Your task to perform on an android device: View the shopping cart on costco. Add logitech g pro to the cart on costco Image 0: 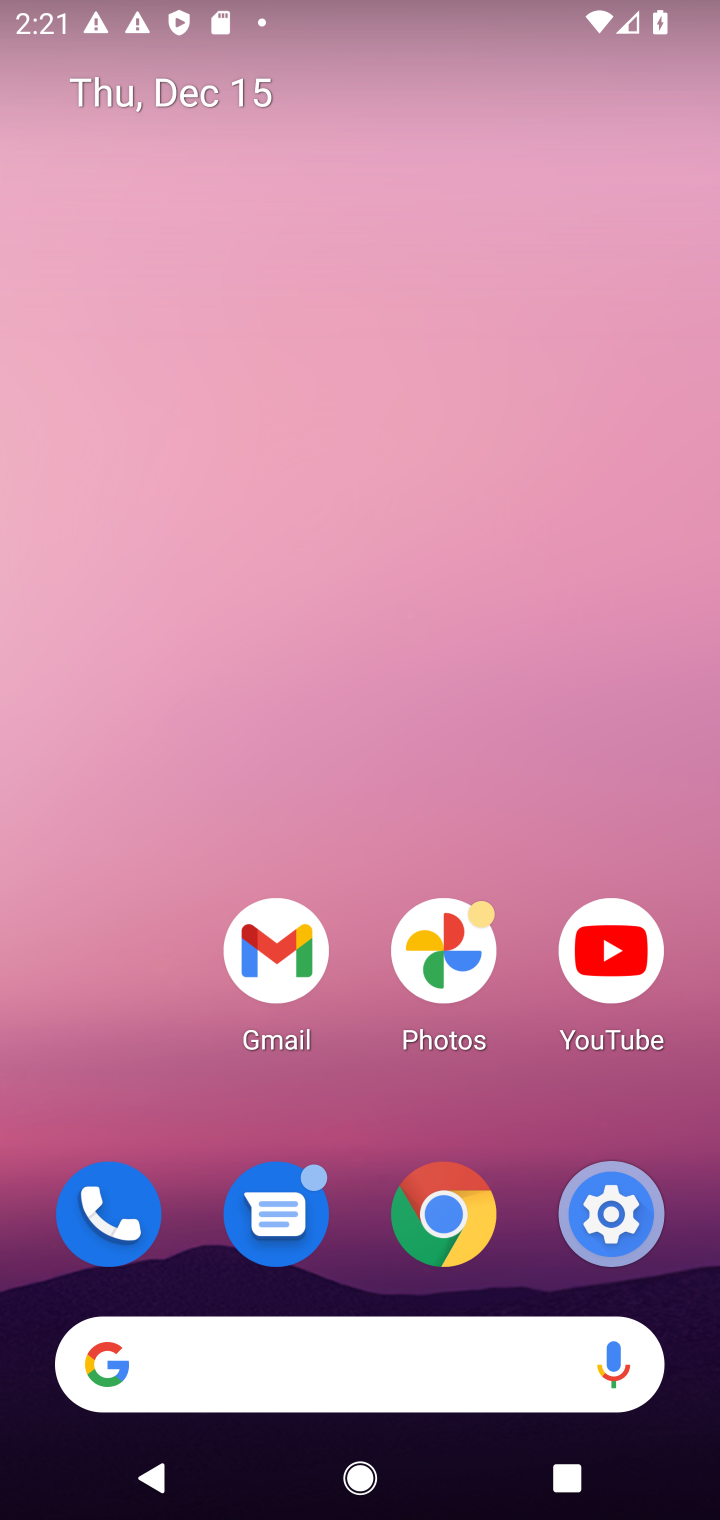
Step 0: click (427, 1226)
Your task to perform on an android device: View the shopping cart on costco. Add logitech g pro to the cart on costco Image 1: 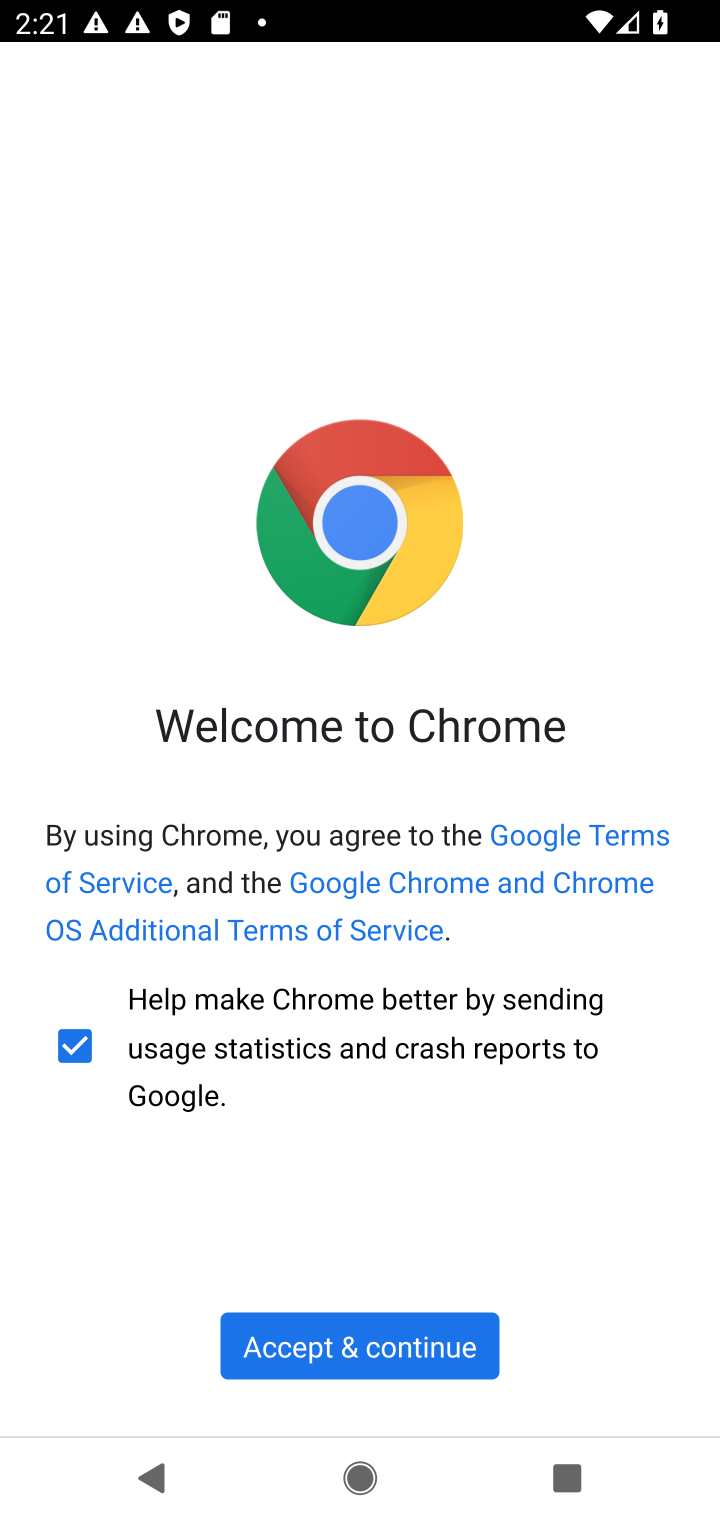
Step 1: click (326, 1330)
Your task to perform on an android device: View the shopping cart on costco. Add logitech g pro to the cart on costco Image 2: 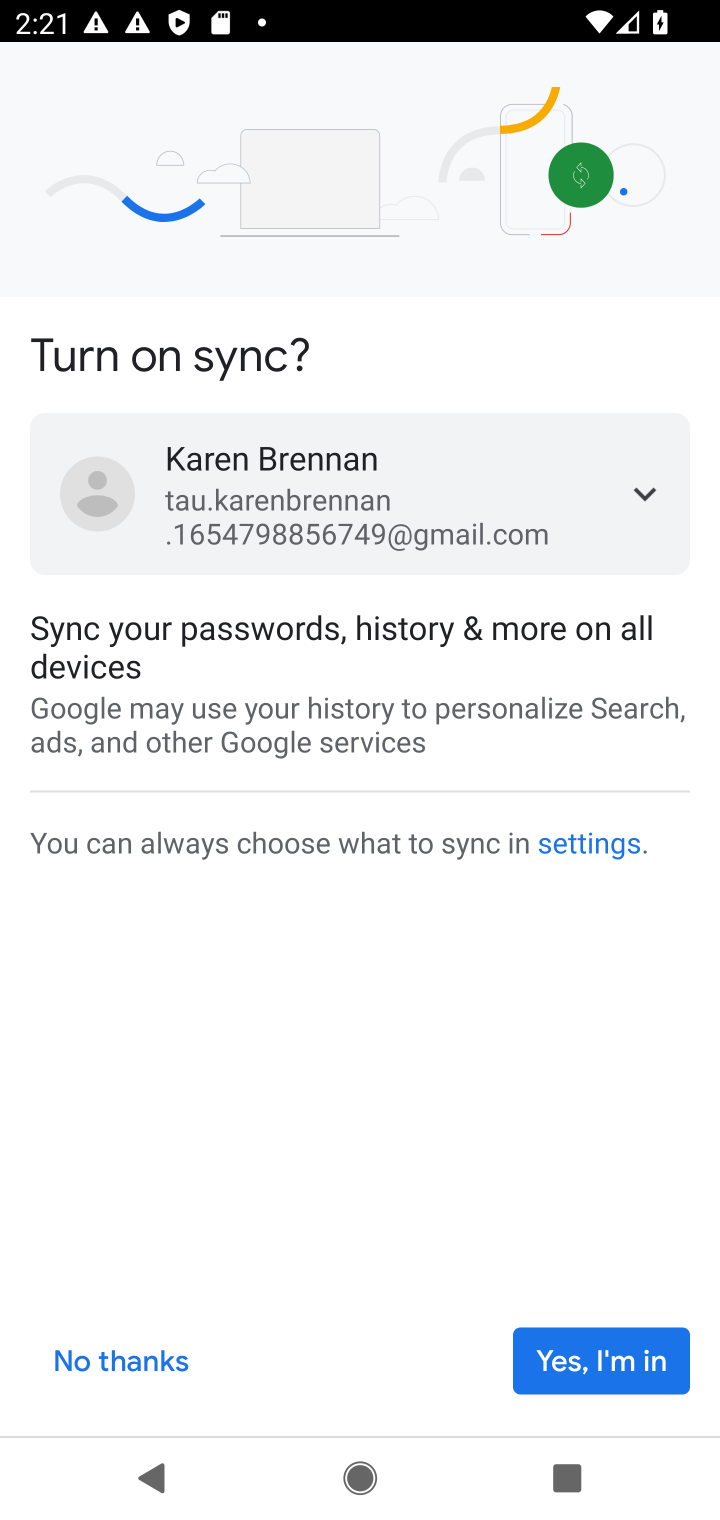
Step 2: click (161, 1368)
Your task to perform on an android device: View the shopping cart on costco. Add logitech g pro to the cart on costco Image 3: 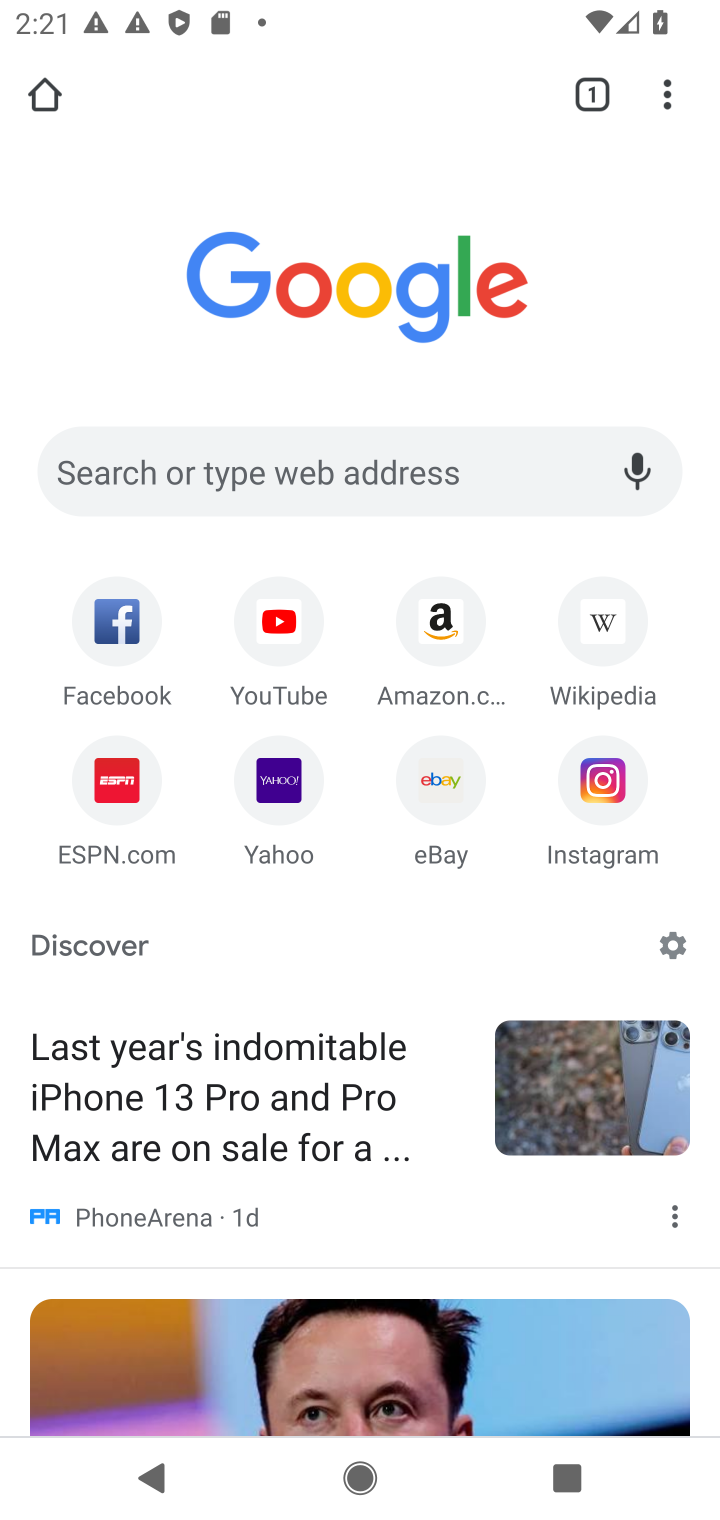
Step 3: click (236, 463)
Your task to perform on an android device: View the shopping cart on costco. Add logitech g pro to the cart on costco Image 4: 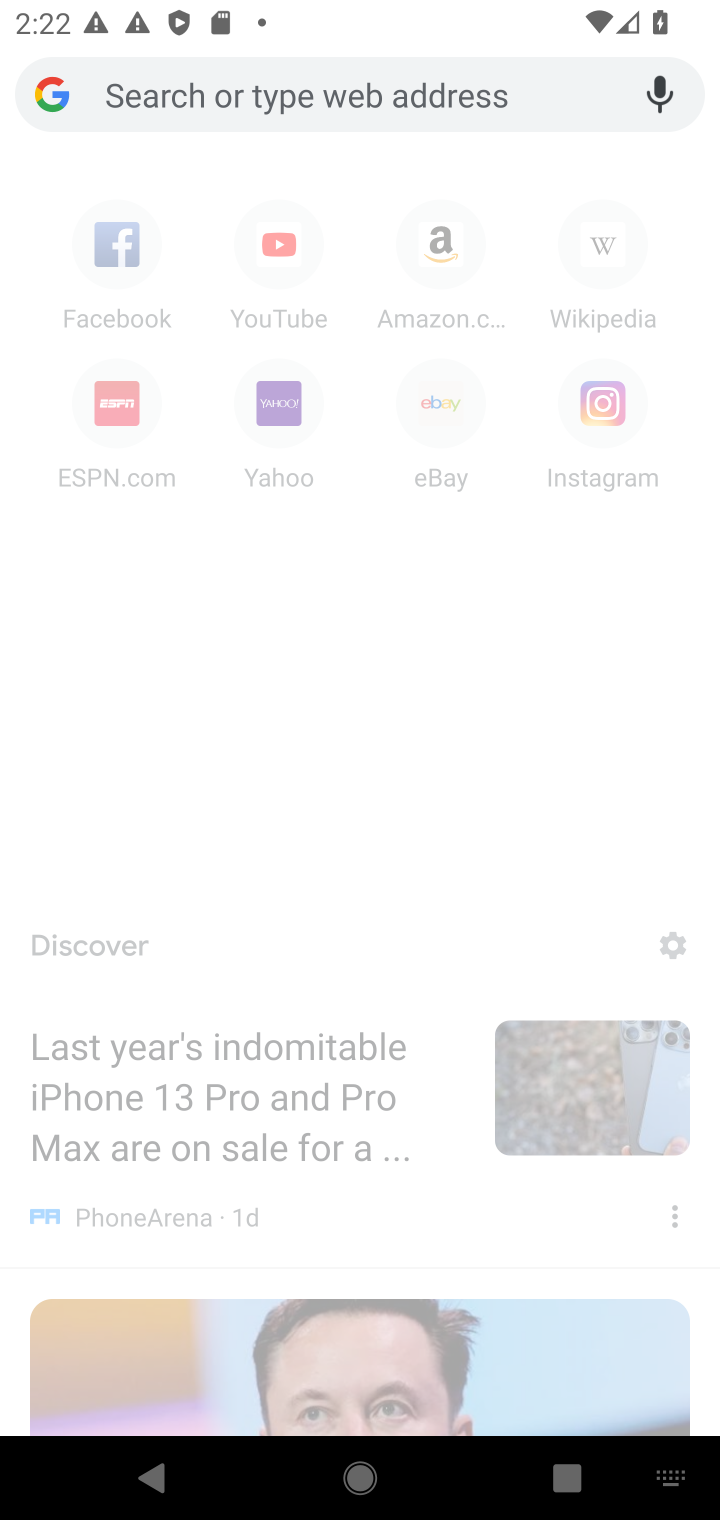
Step 4: type "costco.com"
Your task to perform on an android device: View the shopping cart on costco. Add logitech g pro to the cart on costco Image 5: 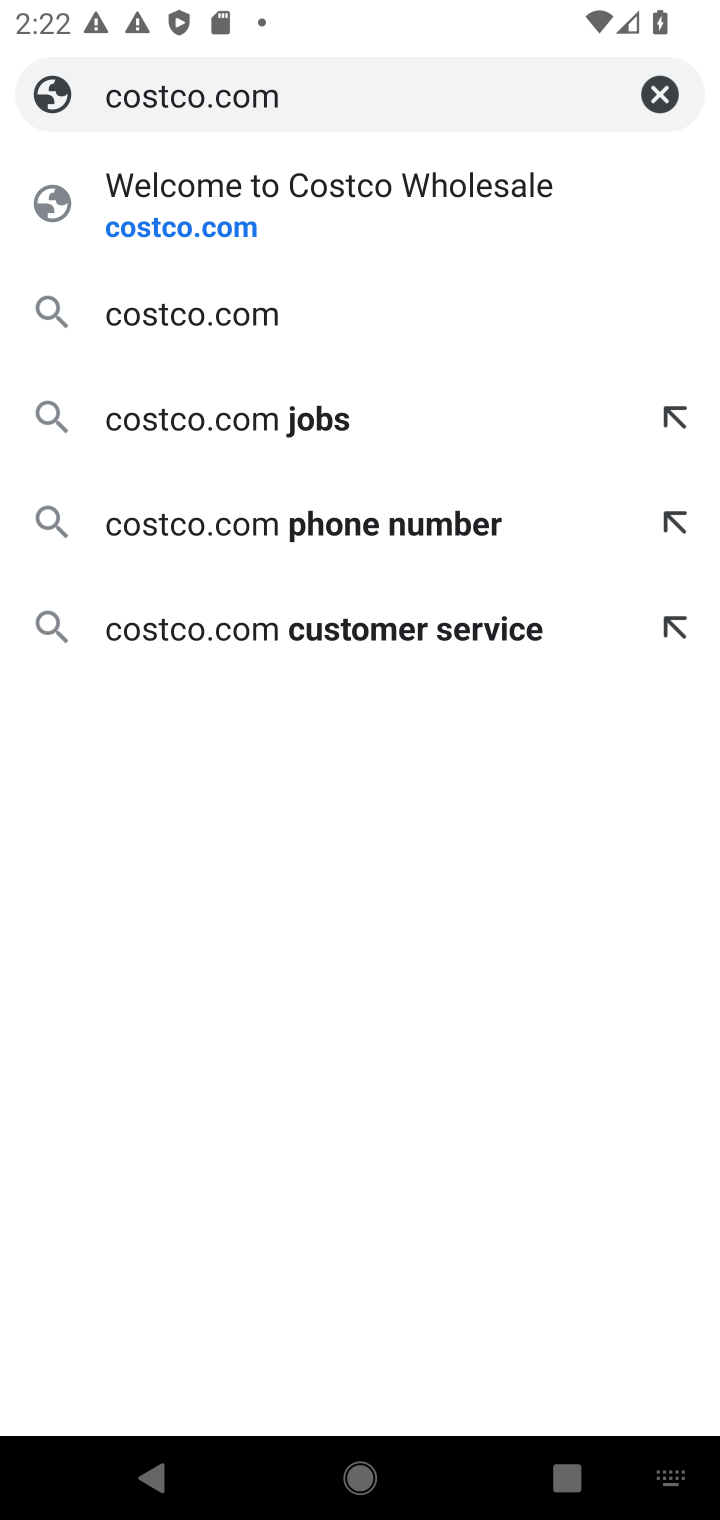
Step 5: click (191, 229)
Your task to perform on an android device: View the shopping cart on costco. Add logitech g pro to the cart on costco Image 6: 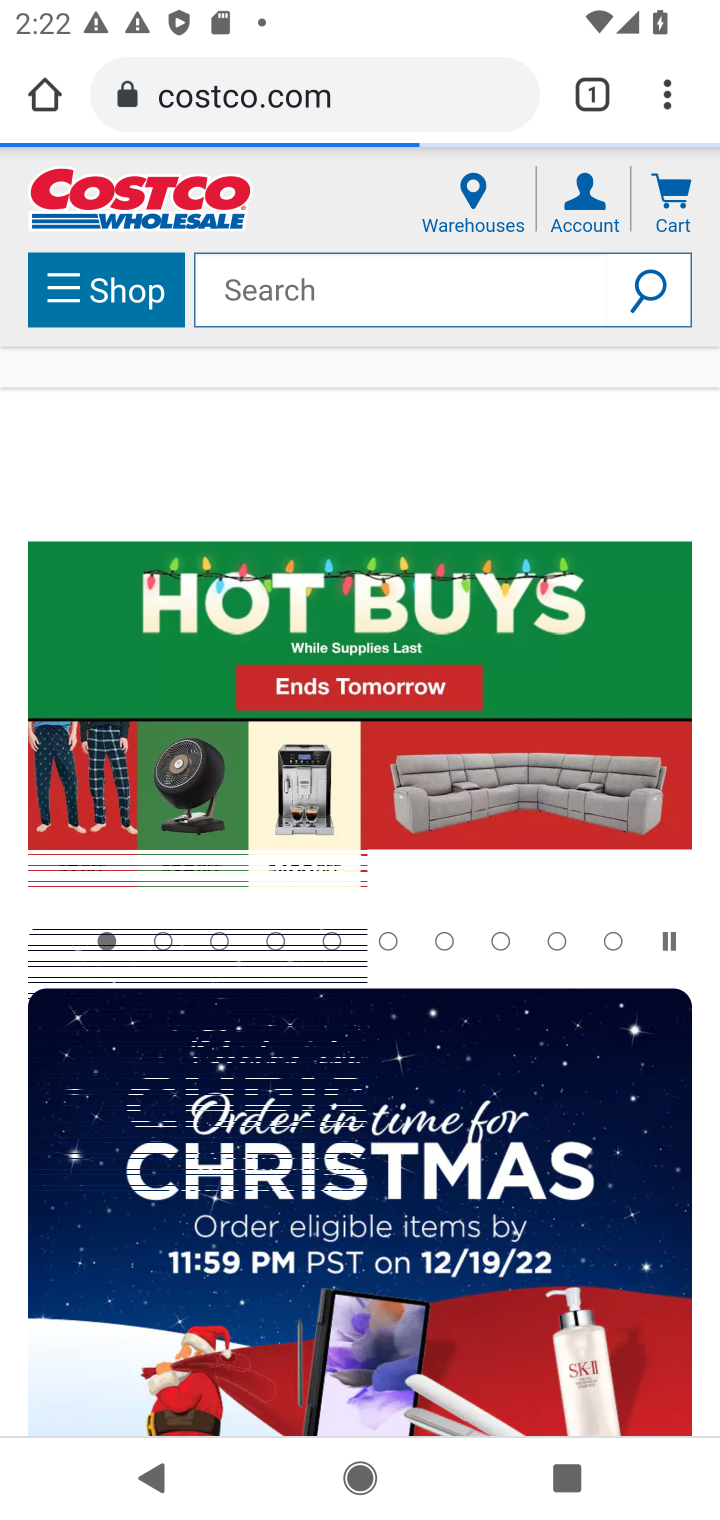
Step 6: click (659, 193)
Your task to perform on an android device: View the shopping cart on costco. Add logitech g pro to the cart on costco Image 7: 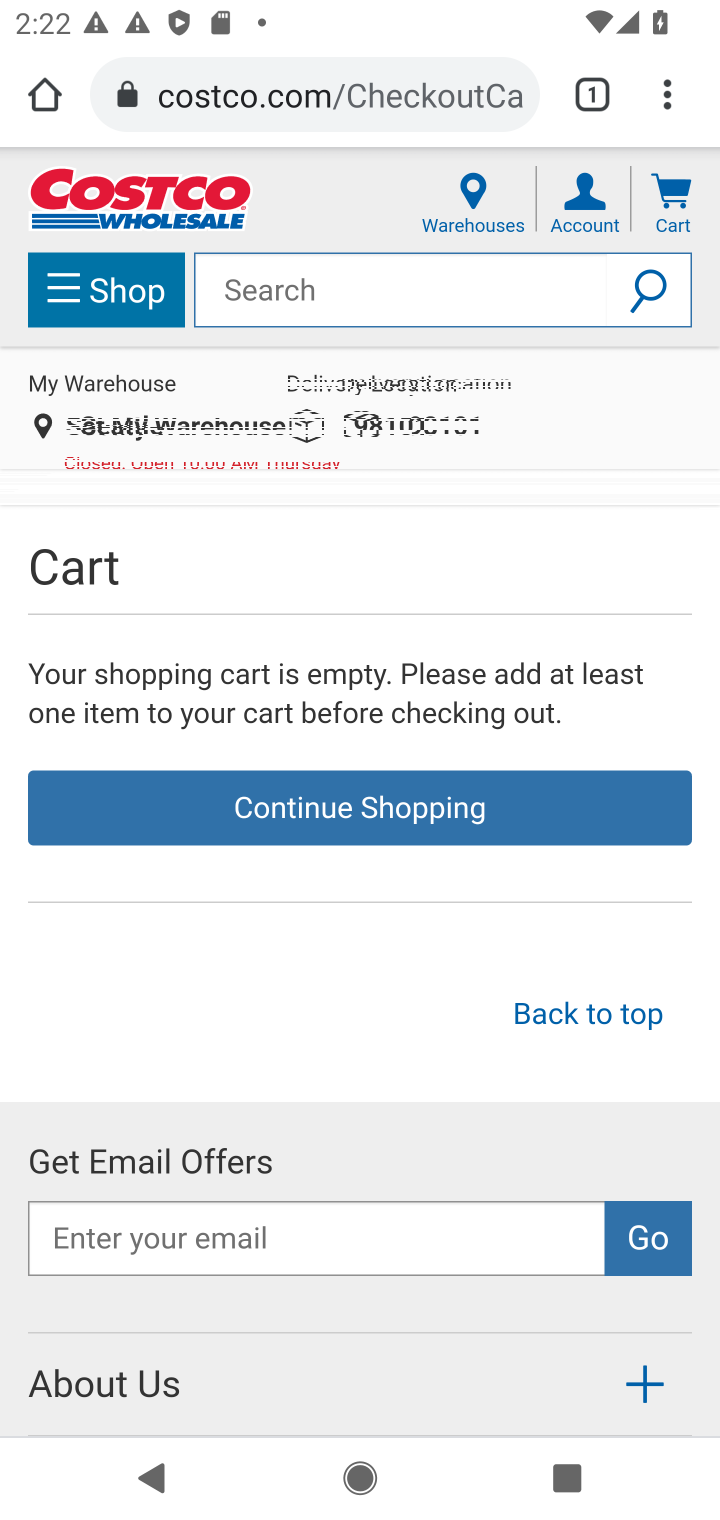
Step 7: click (251, 298)
Your task to perform on an android device: View the shopping cart on costco. Add logitech g pro to the cart on costco Image 8: 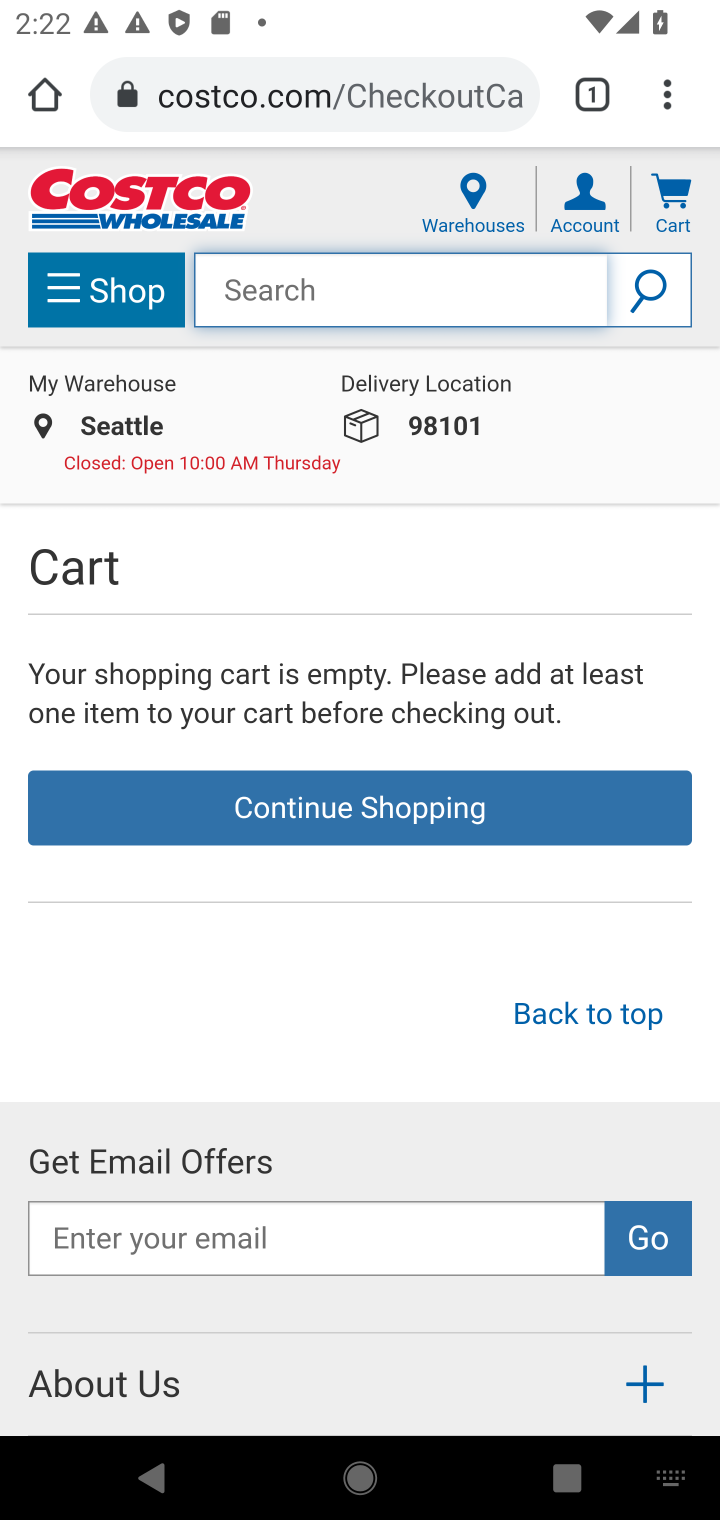
Step 8: type "logitech g pro"
Your task to perform on an android device: View the shopping cart on costco. Add logitech g pro to the cart on costco Image 9: 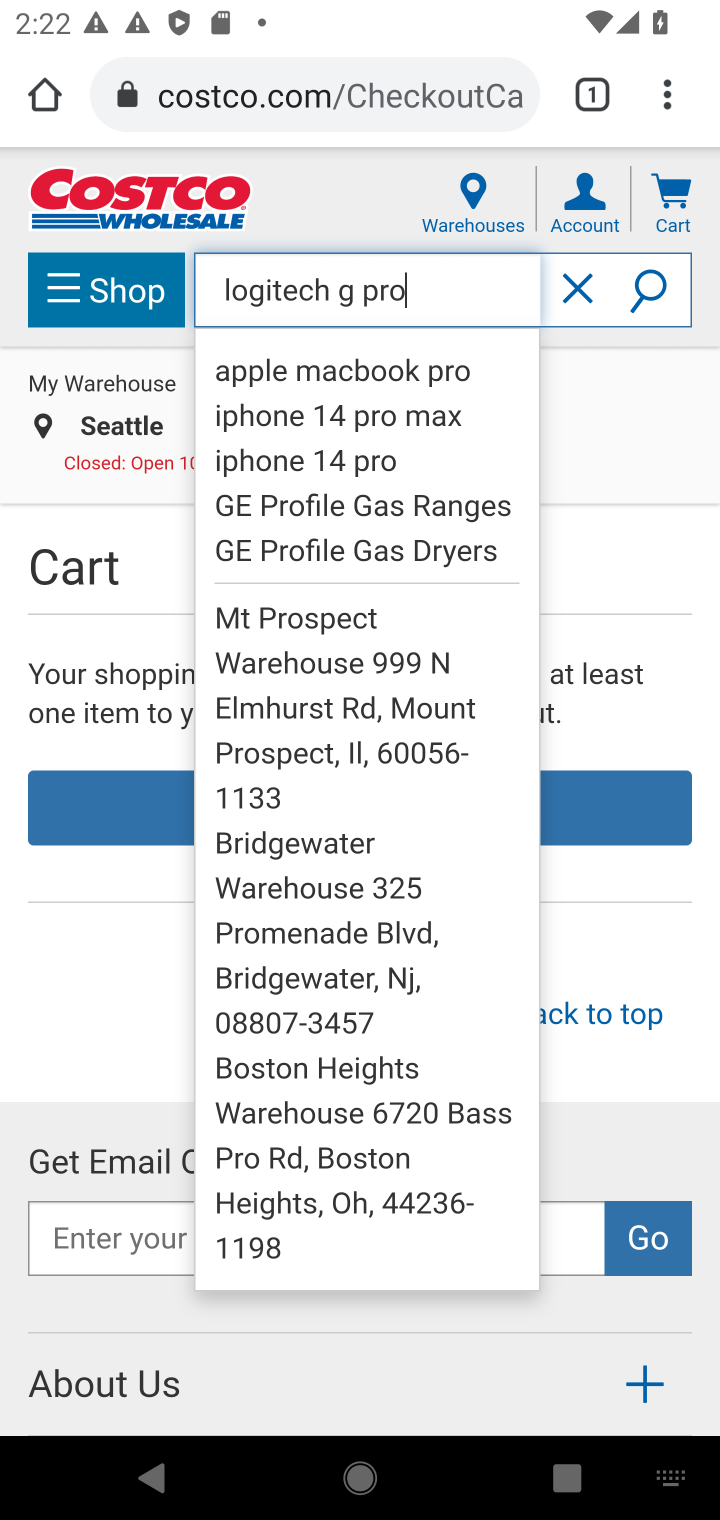
Step 9: click (641, 295)
Your task to perform on an android device: View the shopping cart on costco. Add logitech g pro to the cart on costco Image 10: 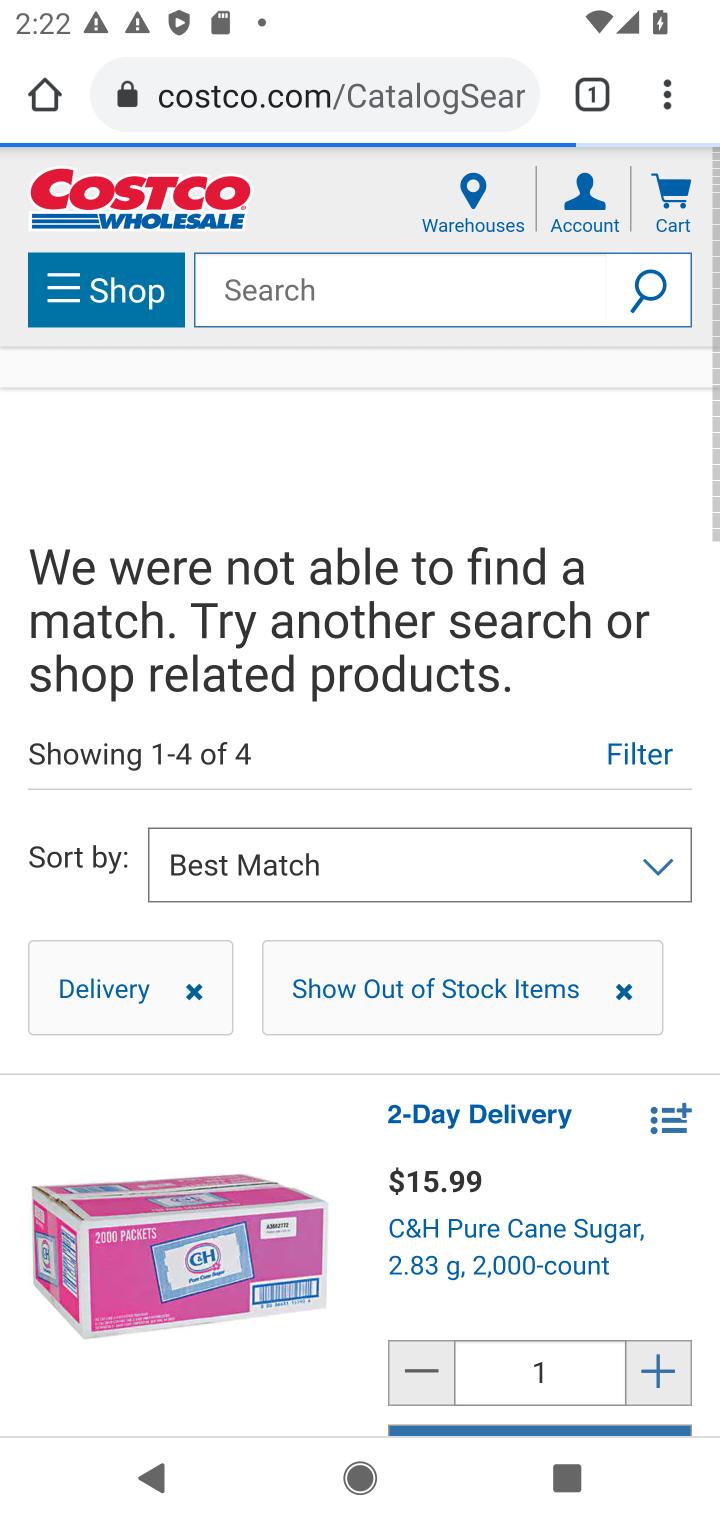
Step 10: task complete